Your task to perform on an android device: What is the recent news? Image 0: 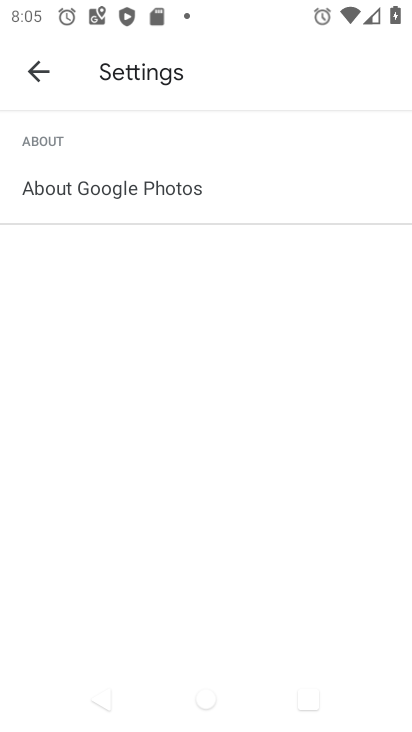
Step 0: press home button
Your task to perform on an android device: What is the recent news? Image 1: 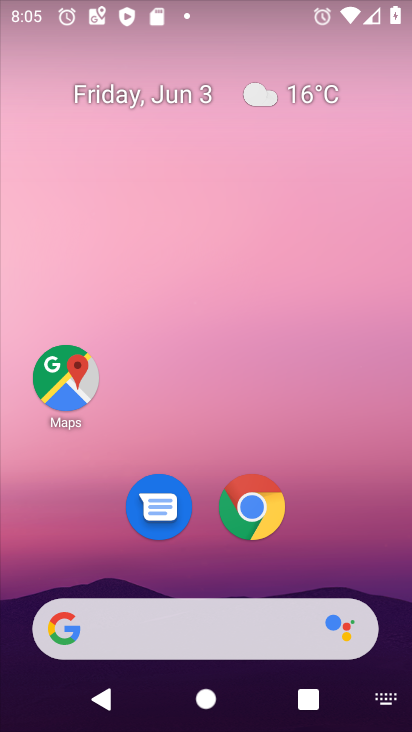
Step 1: drag from (310, 418) to (206, 7)
Your task to perform on an android device: What is the recent news? Image 2: 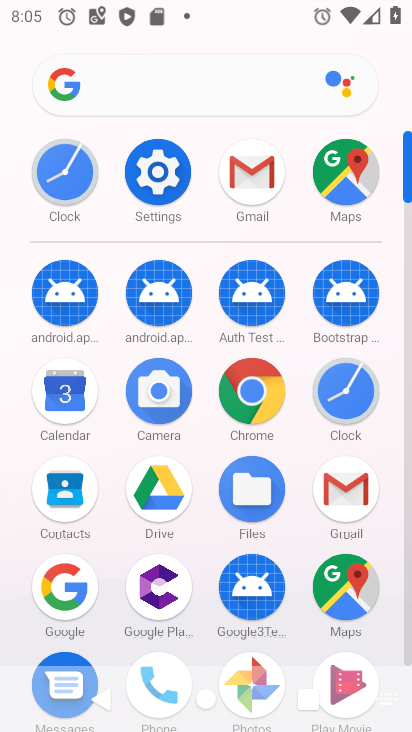
Step 2: click (48, 595)
Your task to perform on an android device: What is the recent news? Image 3: 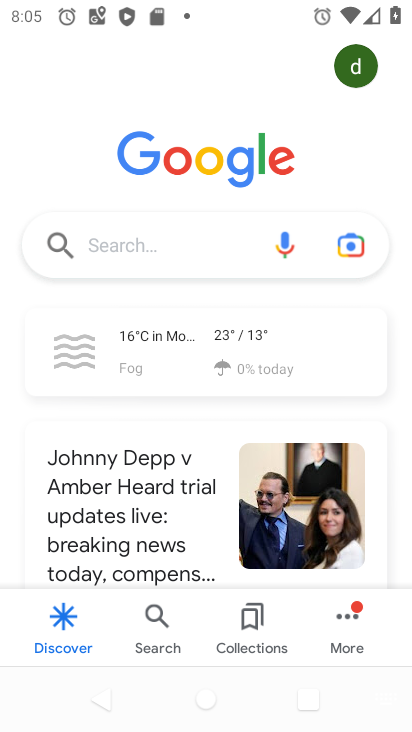
Step 3: click (203, 200)
Your task to perform on an android device: What is the recent news? Image 4: 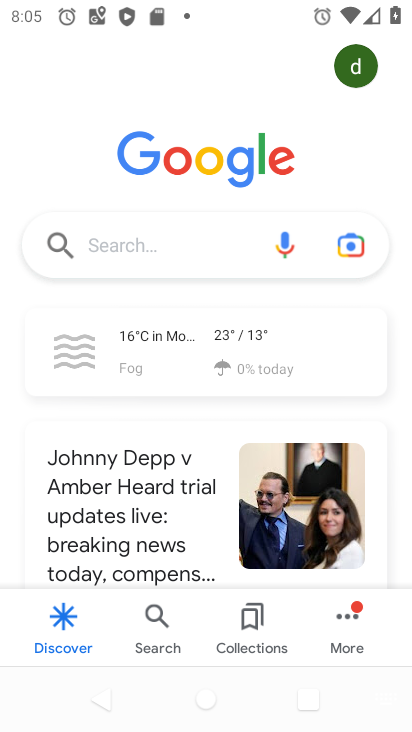
Step 4: click (201, 244)
Your task to perform on an android device: What is the recent news? Image 5: 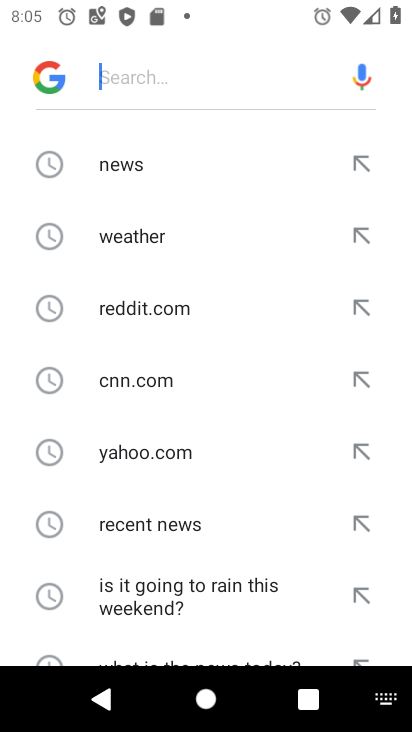
Step 5: click (187, 525)
Your task to perform on an android device: What is the recent news? Image 6: 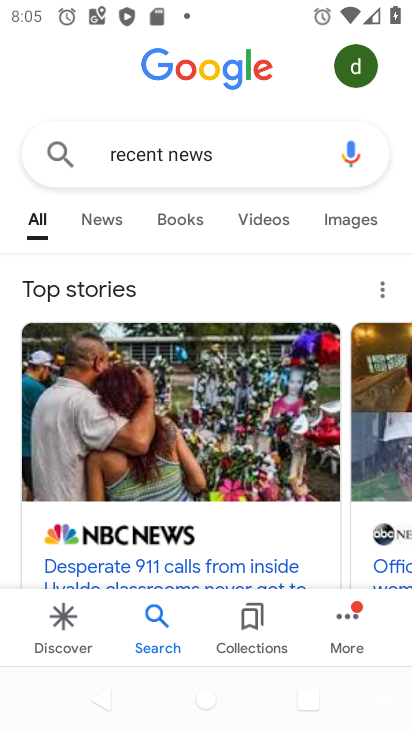
Step 6: task complete